Your task to perform on an android device: toggle notifications settings in the gmail app Image 0: 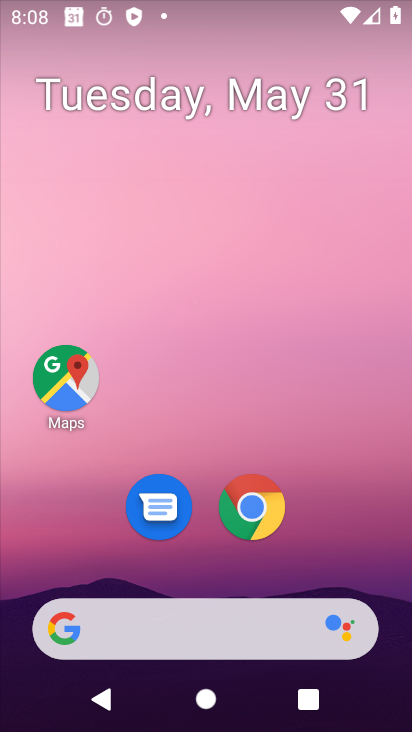
Step 0: drag from (372, 597) to (351, 19)
Your task to perform on an android device: toggle notifications settings in the gmail app Image 1: 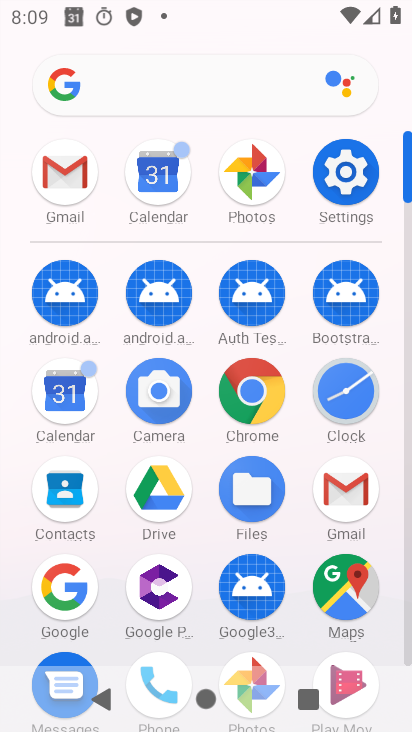
Step 1: click (72, 176)
Your task to perform on an android device: toggle notifications settings in the gmail app Image 2: 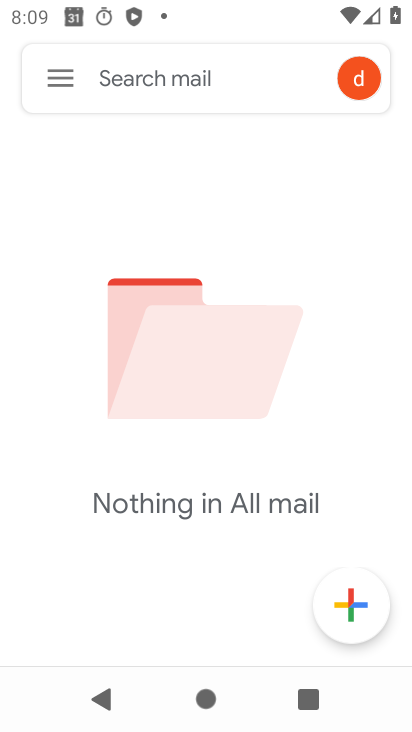
Step 2: click (57, 82)
Your task to perform on an android device: toggle notifications settings in the gmail app Image 3: 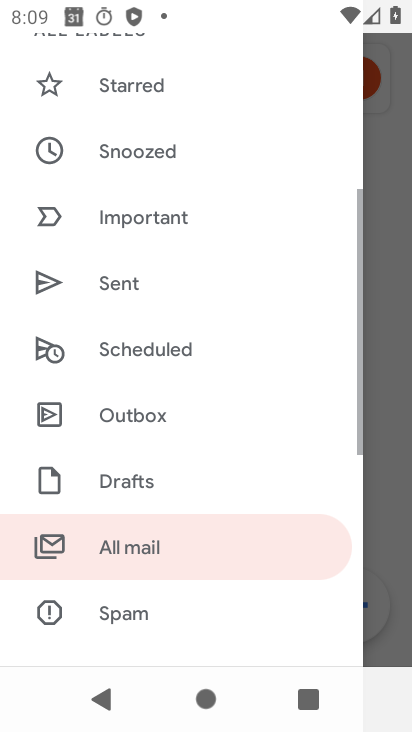
Step 3: drag from (220, 602) to (200, 193)
Your task to perform on an android device: toggle notifications settings in the gmail app Image 4: 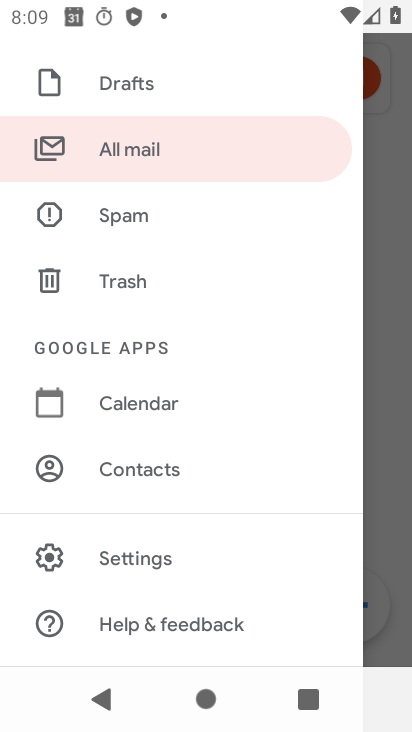
Step 4: click (157, 564)
Your task to perform on an android device: toggle notifications settings in the gmail app Image 5: 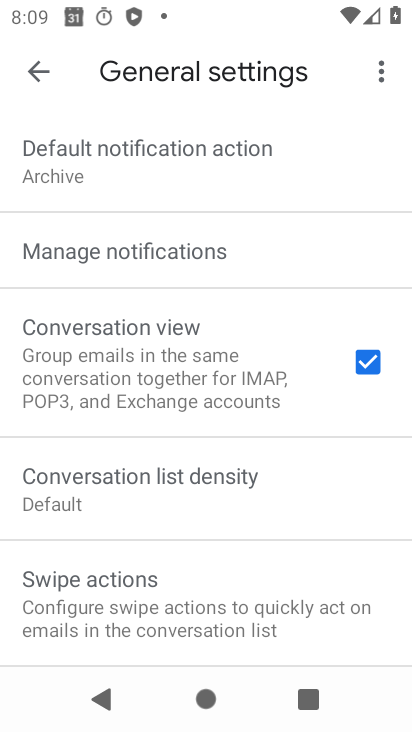
Step 5: click (108, 250)
Your task to perform on an android device: toggle notifications settings in the gmail app Image 6: 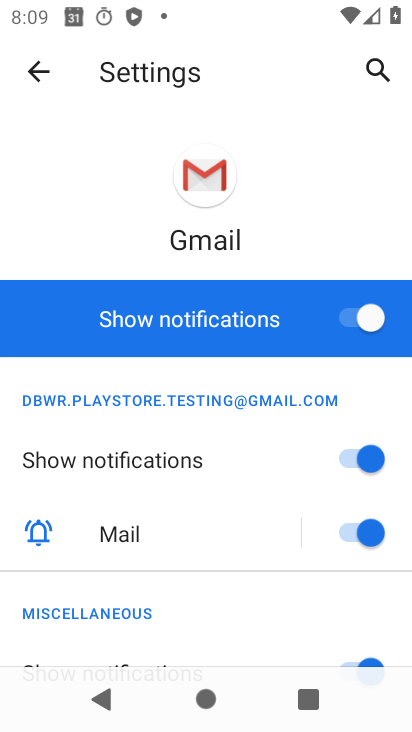
Step 6: click (358, 321)
Your task to perform on an android device: toggle notifications settings in the gmail app Image 7: 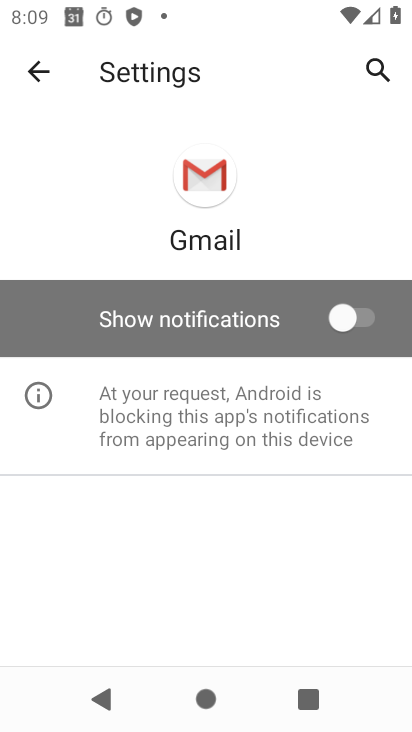
Step 7: task complete